Your task to perform on an android device: Open Wikipedia Image 0: 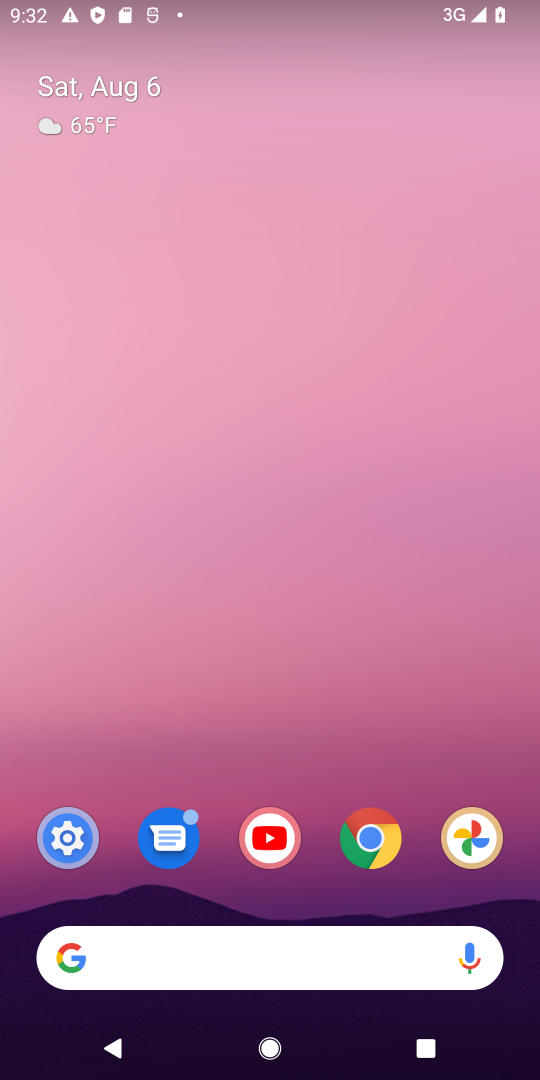
Step 0: drag from (143, 942) to (52, 63)
Your task to perform on an android device: Open Wikipedia Image 1: 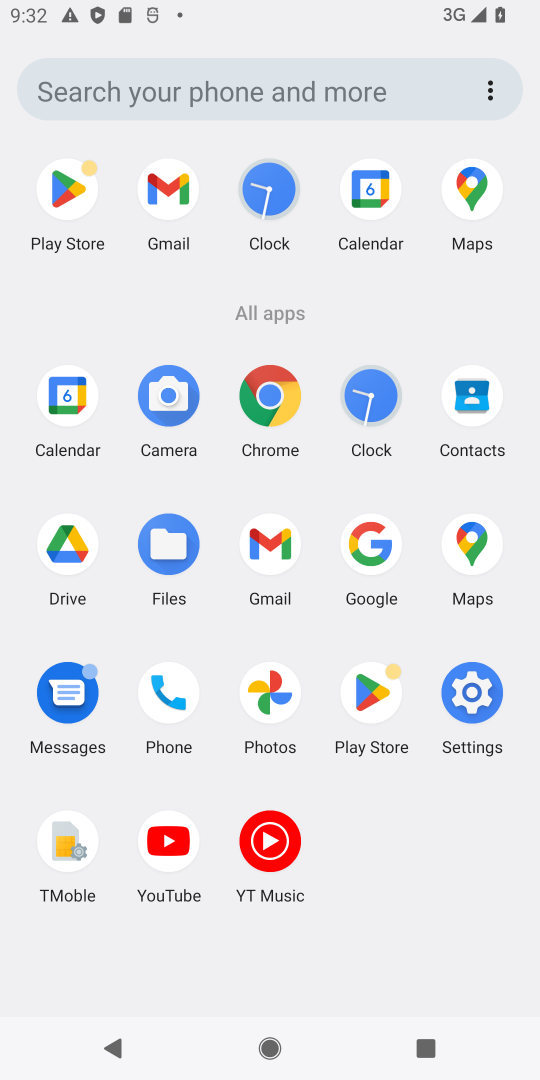
Step 1: click (248, 415)
Your task to perform on an android device: Open Wikipedia Image 2: 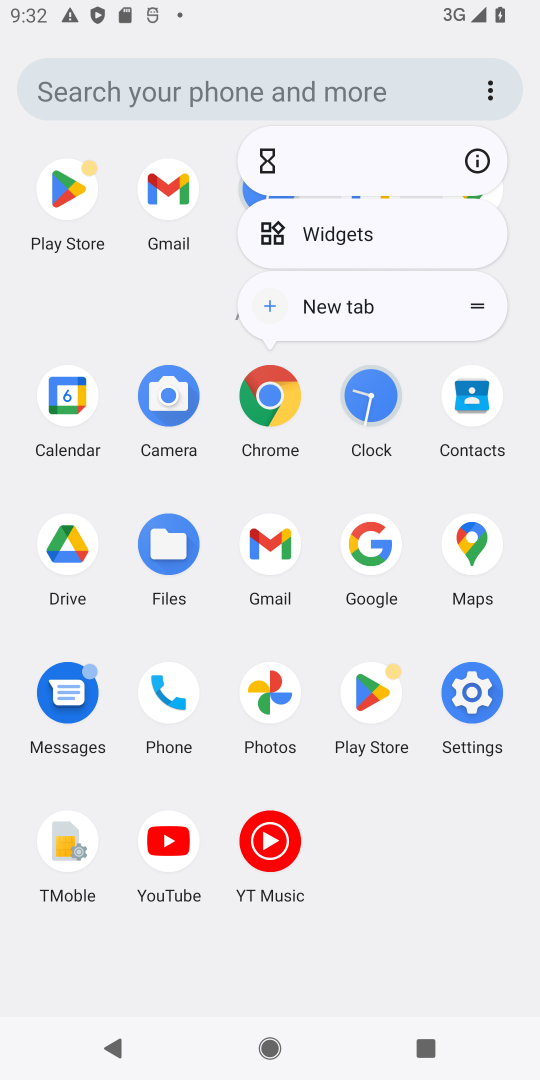
Step 2: click (260, 410)
Your task to perform on an android device: Open Wikipedia Image 3: 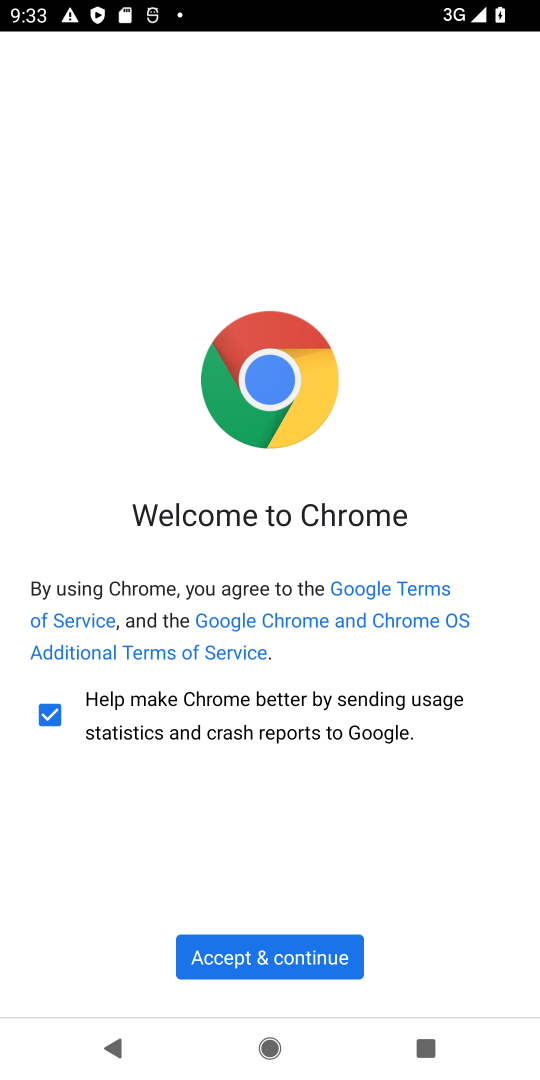
Step 3: click (220, 975)
Your task to perform on an android device: Open Wikipedia Image 4: 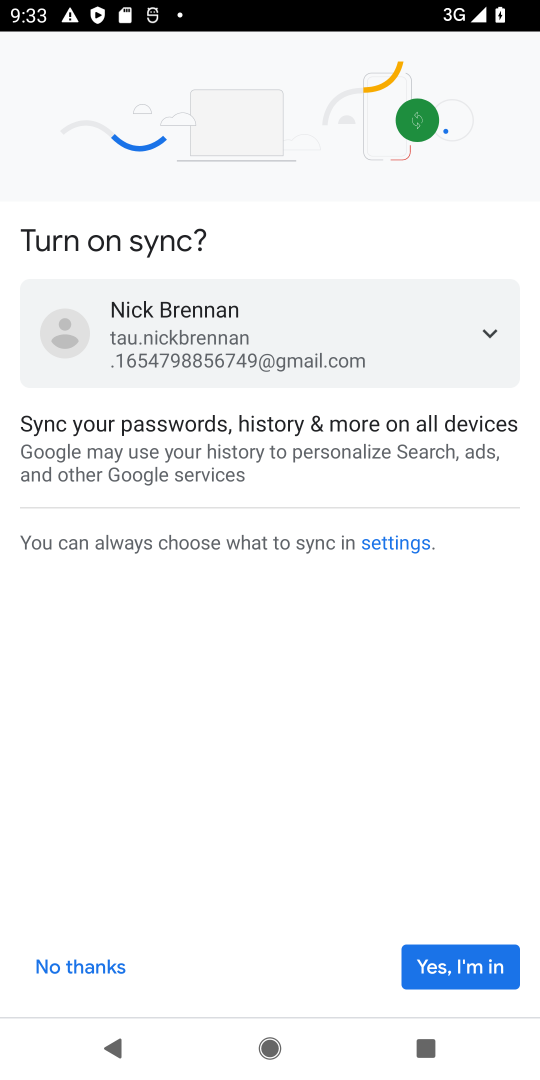
Step 4: click (30, 962)
Your task to perform on an android device: Open Wikipedia Image 5: 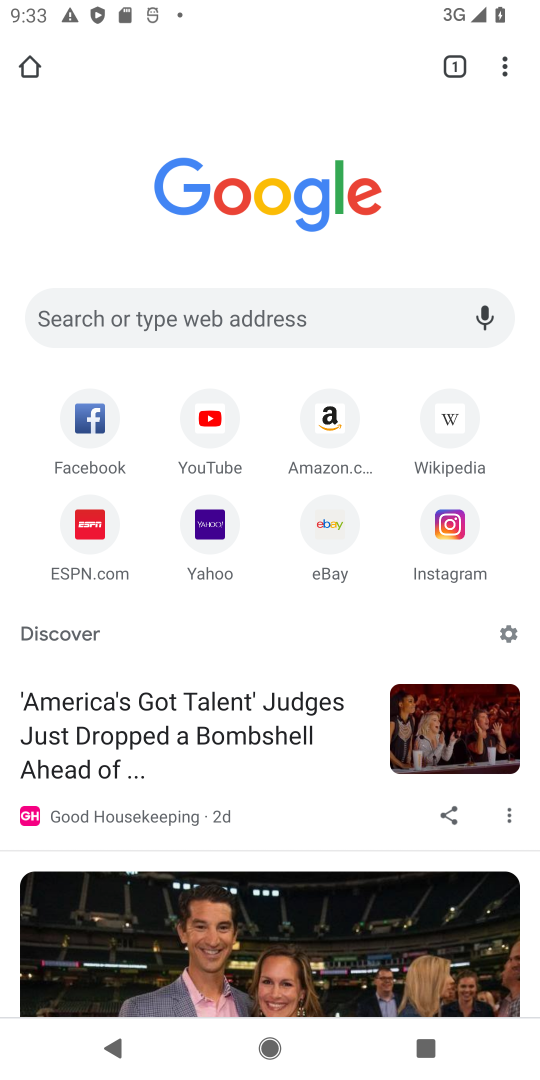
Step 5: click (460, 438)
Your task to perform on an android device: Open Wikipedia Image 6: 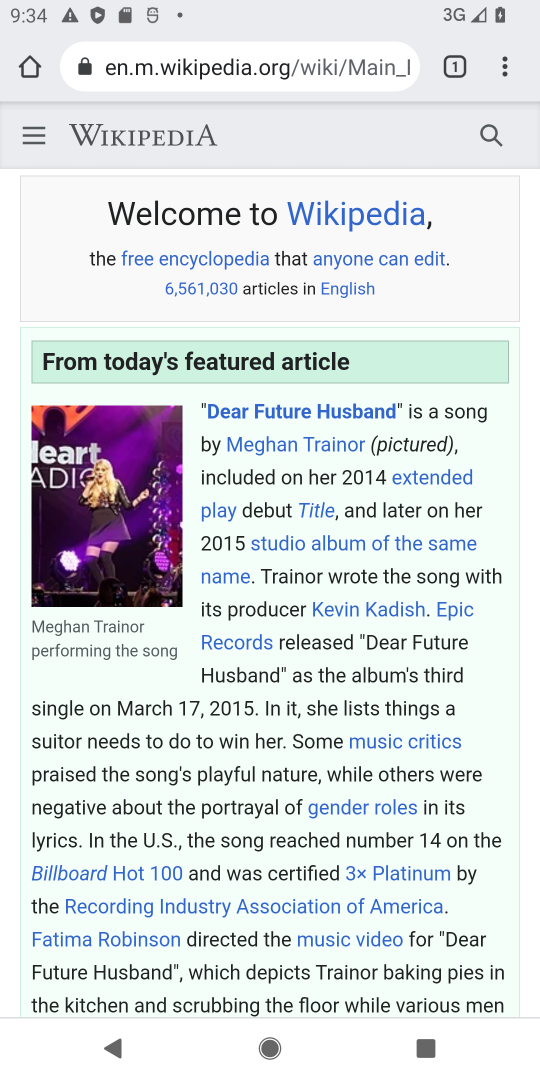
Step 6: task complete